Your task to perform on an android device: add a label to a message in the gmail app Image 0: 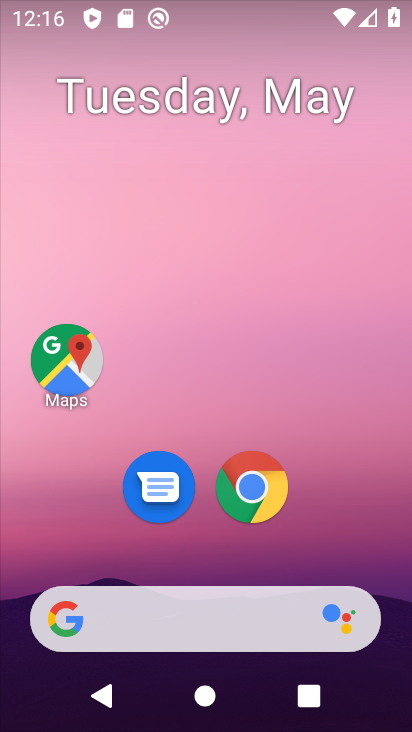
Step 0: drag from (361, 481) to (280, 12)
Your task to perform on an android device: add a label to a message in the gmail app Image 1: 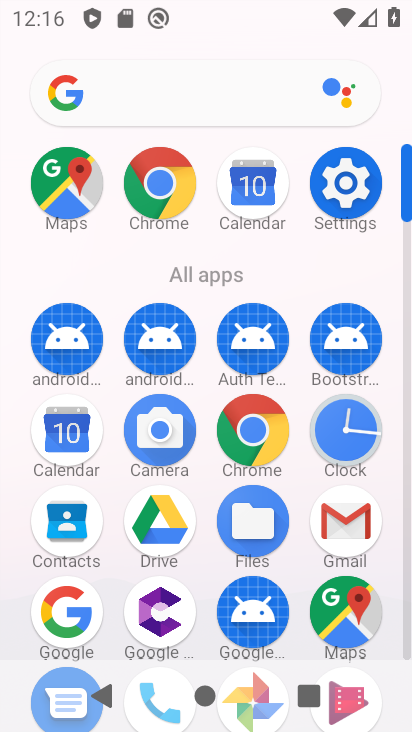
Step 1: drag from (5, 526) to (19, 239)
Your task to perform on an android device: add a label to a message in the gmail app Image 2: 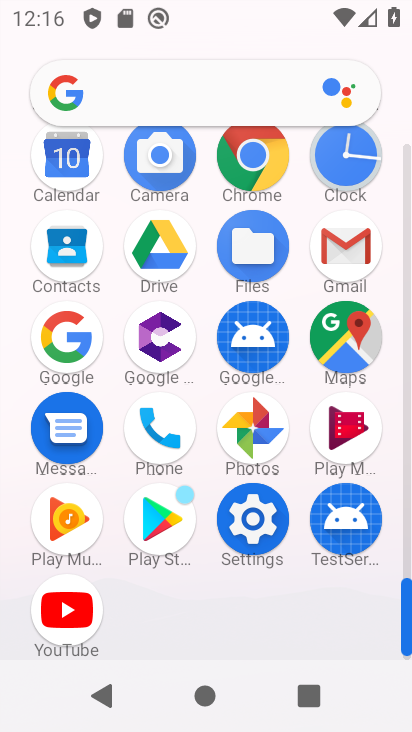
Step 2: click (341, 245)
Your task to perform on an android device: add a label to a message in the gmail app Image 3: 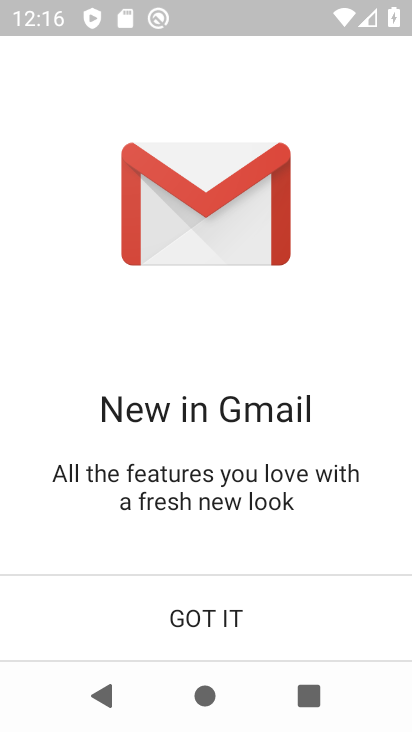
Step 3: click (199, 615)
Your task to perform on an android device: add a label to a message in the gmail app Image 4: 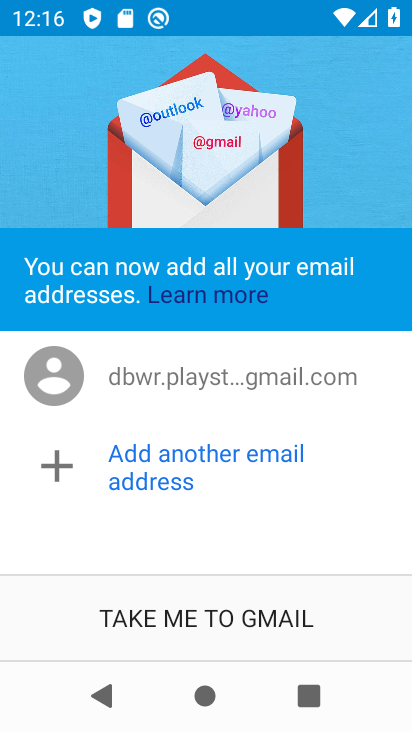
Step 4: click (207, 587)
Your task to perform on an android device: add a label to a message in the gmail app Image 5: 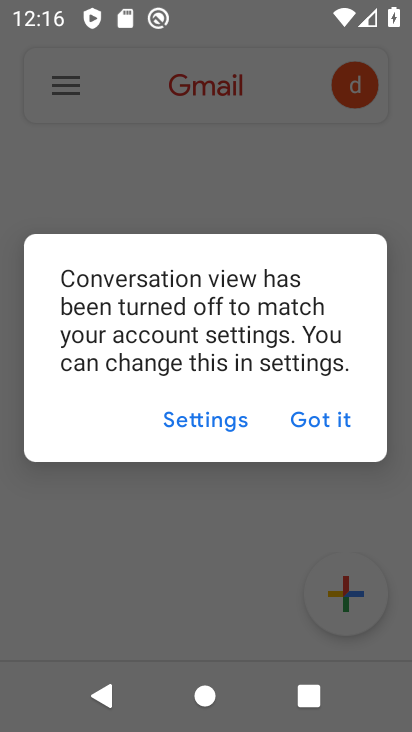
Step 5: click (328, 411)
Your task to perform on an android device: add a label to a message in the gmail app Image 6: 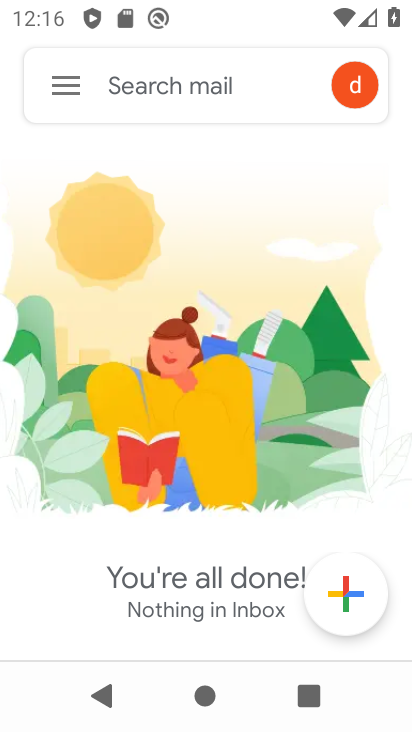
Step 6: click (49, 80)
Your task to perform on an android device: add a label to a message in the gmail app Image 7: 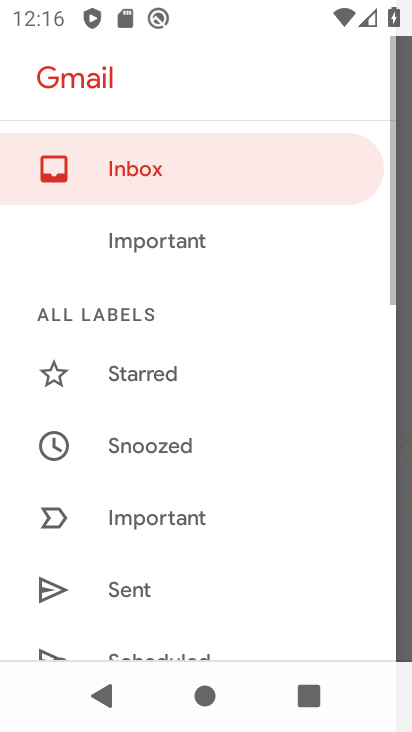
Step 7: drag from (261, 546) to (281, 98)
Your task to perform on an android device: add a label to a message in the gmail app Image 8: 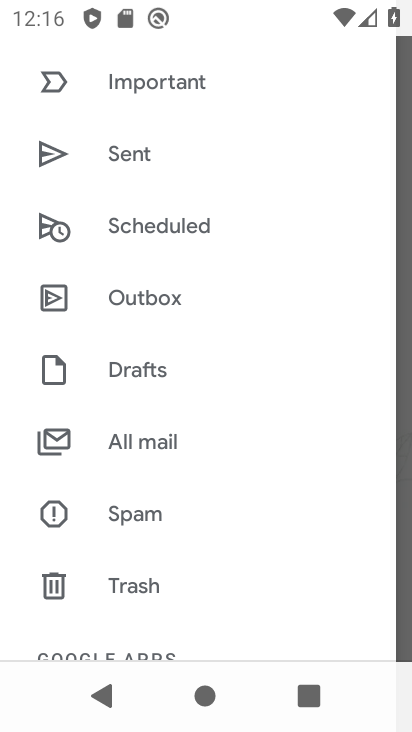
Step 8: drag from (224, 504) to (236, 138)
Your task to perform on an android device: add a label to a message in the gmail app Image 9: 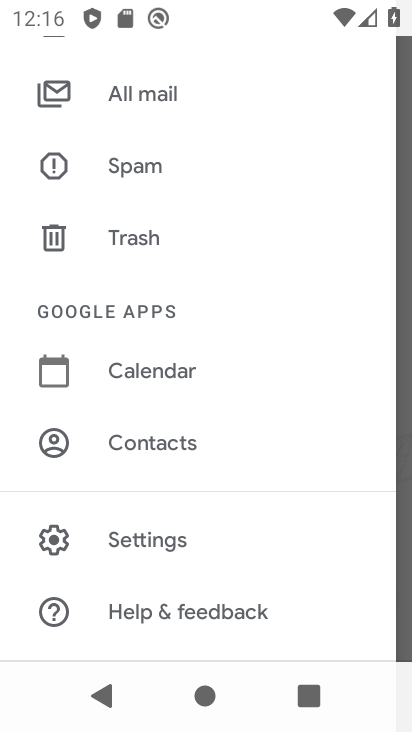
Step 9: click (157, 79)
Your task to perform on an android device: add a label to a message in the gmail app Image 10: 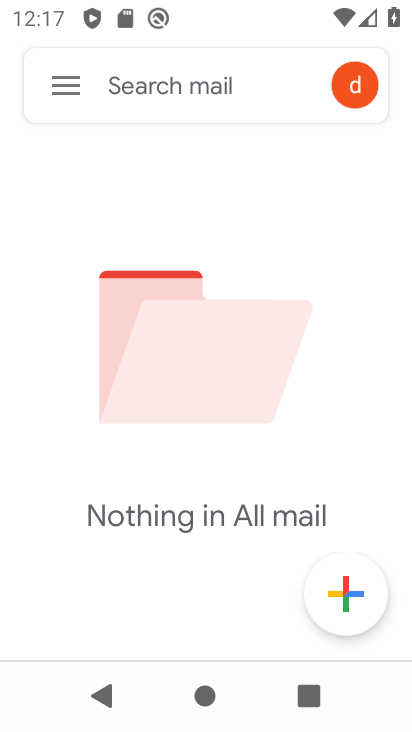
Step 10: task complete